Your task to perform on an android device: Go to Android settings Image 0: 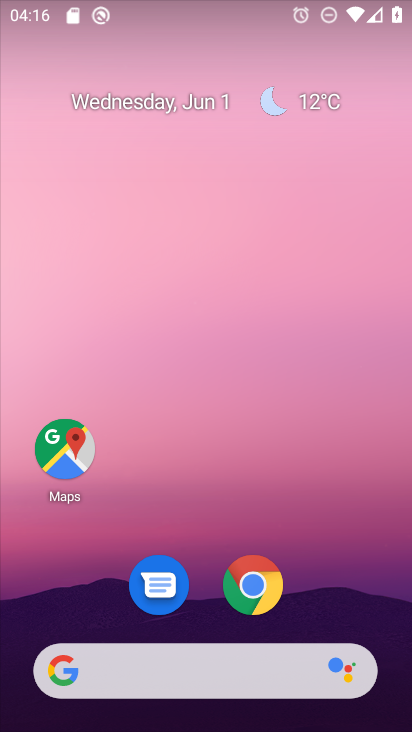
Step 0: drag from (235, 501) to (223, 22)
Your task to perform on an android device: Go to Android settings Image 1: 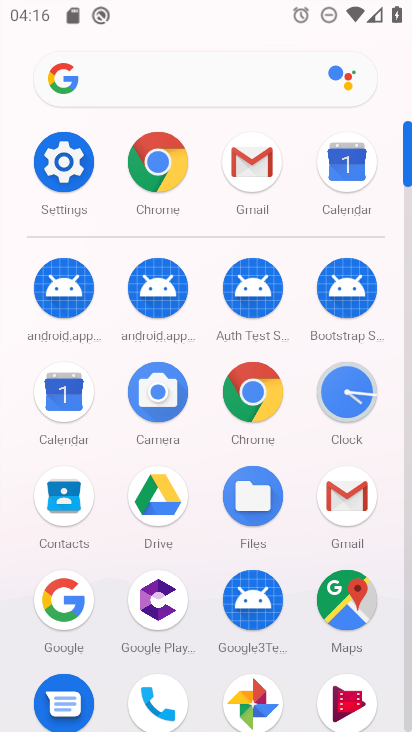
Step 1: click (74, 152)
Your task to perform on an android device: Go to Android settings Image 2: 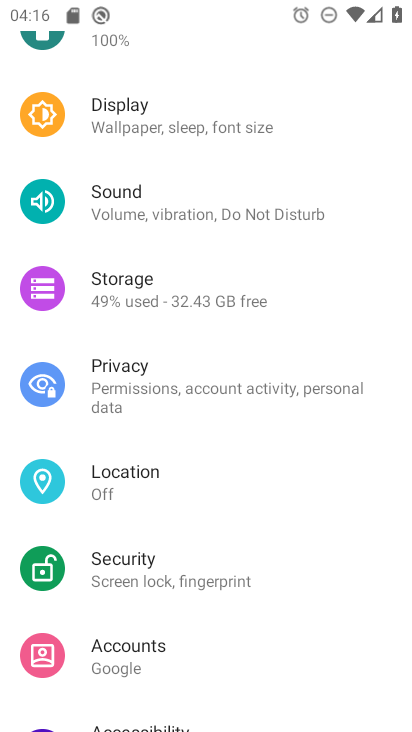
Step 2: drag from (288, 674) to (279, 77)
Your task to perform on an android device: Go to Android settings Image 3: 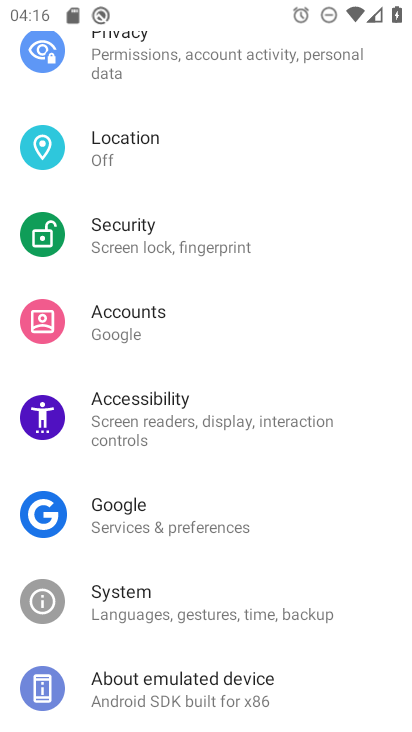
Step 3: click (256, 681)
Your task to perform on an android device: Go to Android settings Image 4: 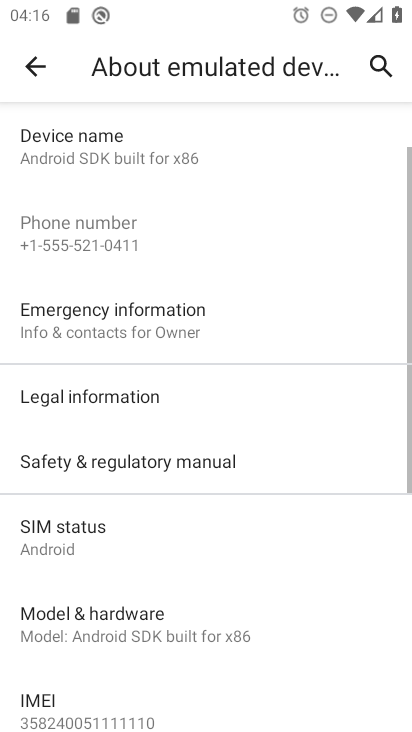
Step 4: task complete